Your task to perform on an android device: Turn off the flashlight Image 0: 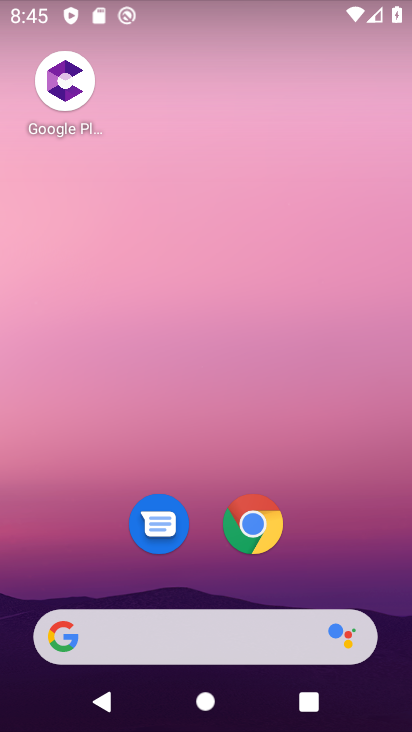
Step 0: drag from (279, 455) to (244, 2)
Your task to perform on an android device: Turn off the flashlight Image 1: 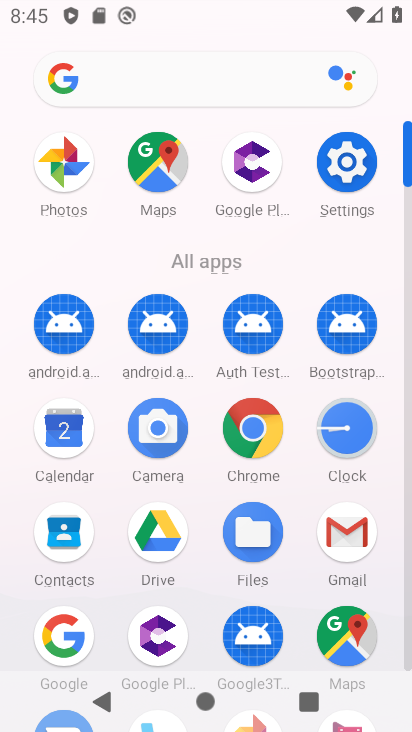
Step 1: click (339, 161)
Your task to perform on an android device: Turn off the flashlight Image 2: 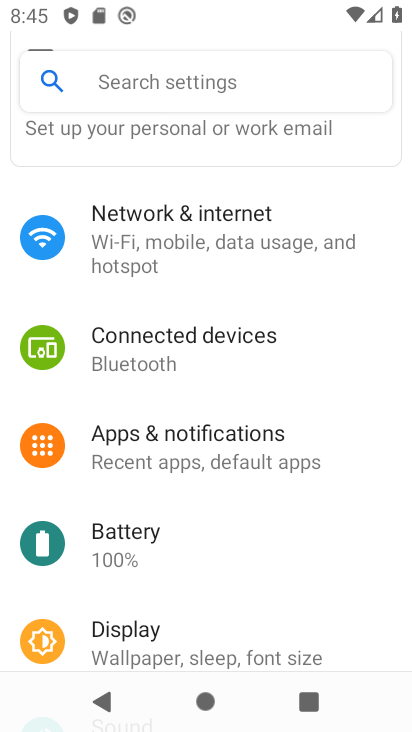
Step 2: click (252, 73)
Your task to perform on an android device: Turn off the flashlight Image 3: 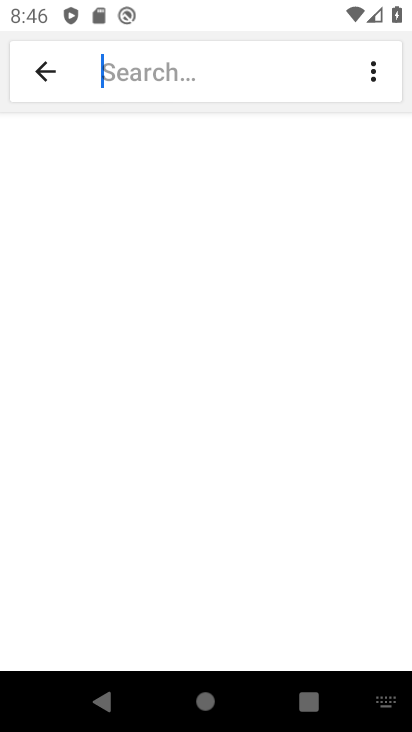
Step 3: type "Flashlight"
Your task to perform on an android device: Turn off the flashlight Image 4: 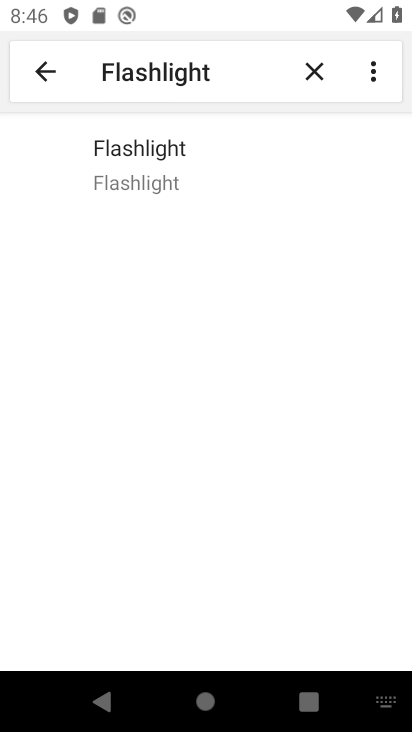
Step 4: click (142, 152)
Your task to perform on an android device: Turn off the flashlight Image 5: 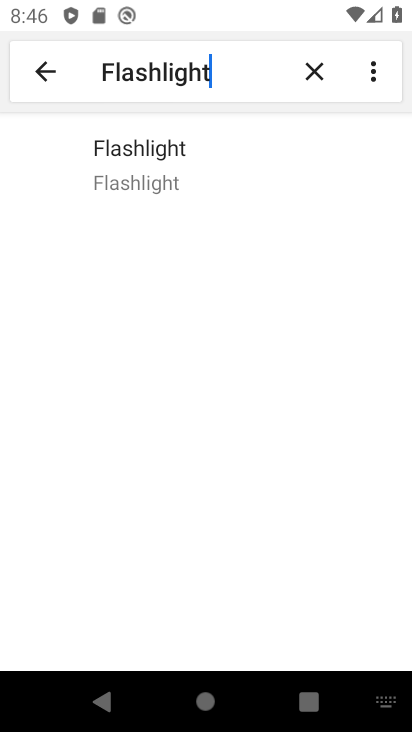
Step 5: task complete